Your task to perform on an android device: Open Youtube and go to "Your channel" Image 0: 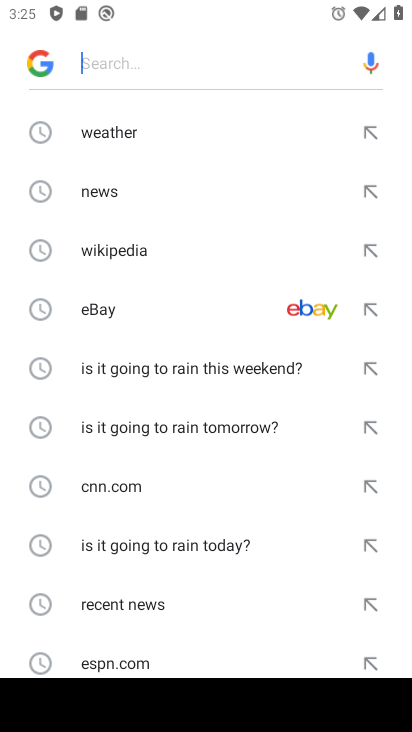
Step 0: press home button
Your task to perform on an android device: Open Youtube and go to "Your channel" Image 1: 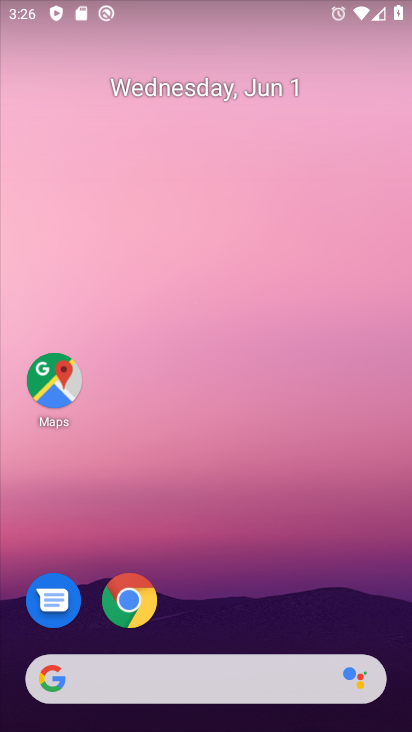
Step 1: drag from (211, 626) to (202, 222)
Your task to perform on an android device: Open Youtube and go to "Your channel" Image 2: 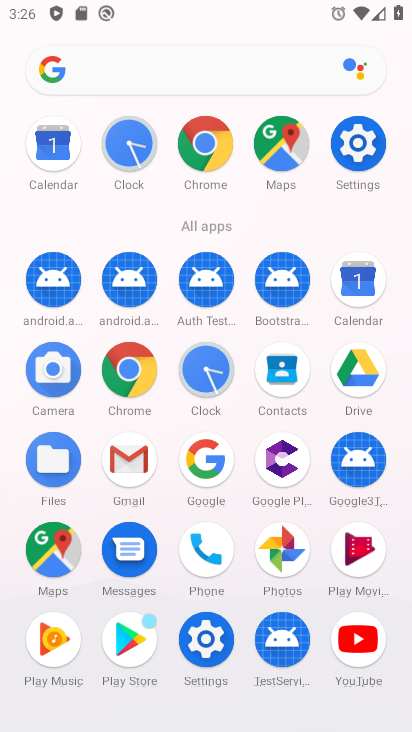
Step 2: click (356, 661)
Your task to perform on an android device: Open Youtube and go to "Your channel" Image 3: 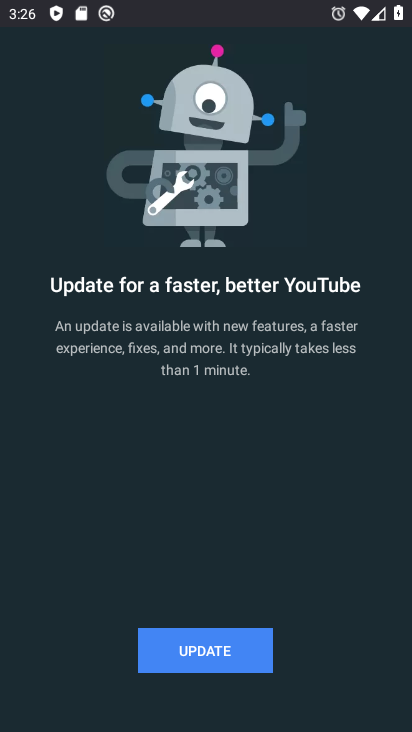
Step 3: click (237, 659)
Your task to perform on an android device: Open Youtube and go to "Your channel" Image 4: 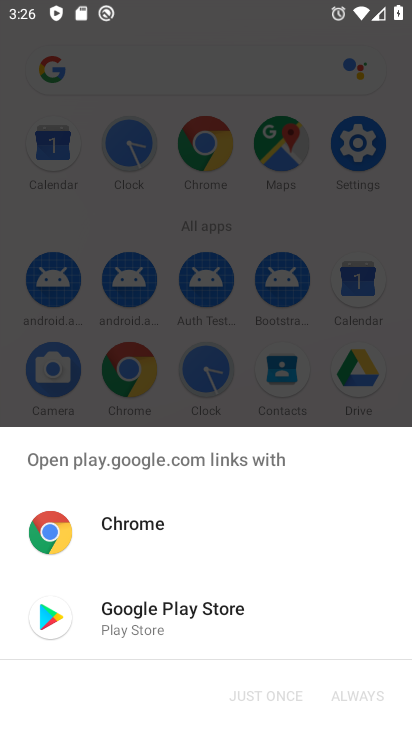
Step 4: click (205, 620)
Your task to perform on an android device: Open Youtube and go to "Your channel" Image 5: 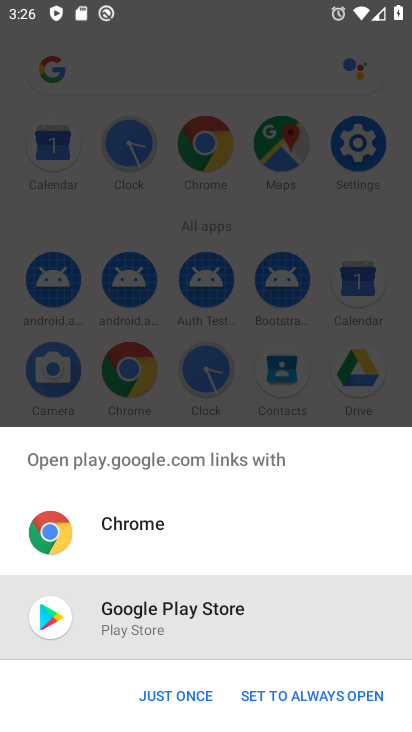
Step 5: click (277, 697)
Your task to perform on an android device: Open Youtube and go to "Your channel" Image 6: 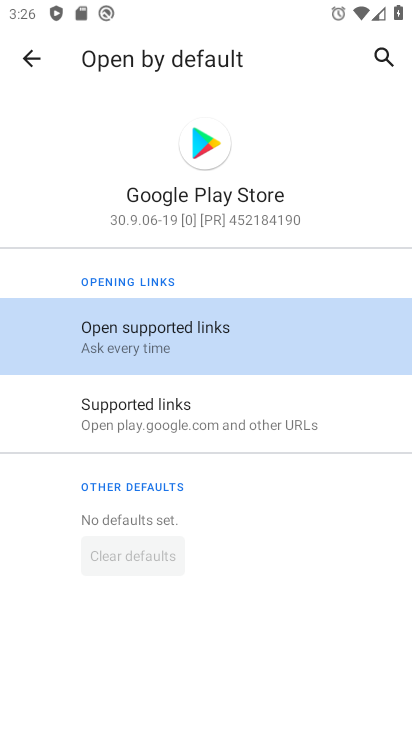
Step 6: click (115, 322)
Your task to perform on an android device: Open Youtube and go to "Your channel" Image 7: 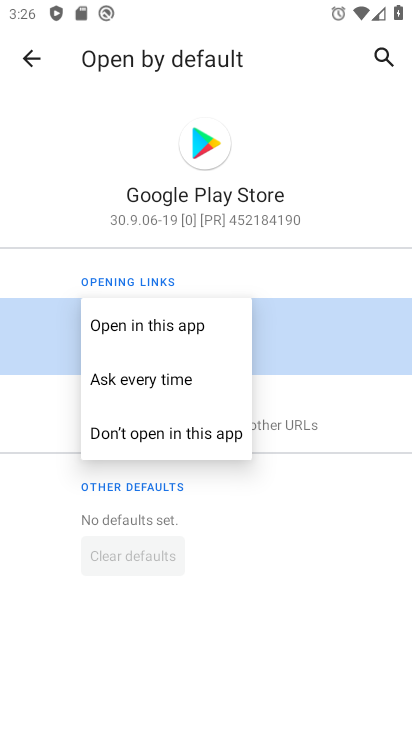
Step 7: click (121, 326)
Your task to perform on an android device: Open Youtube and go to "Your channel" Image 8: 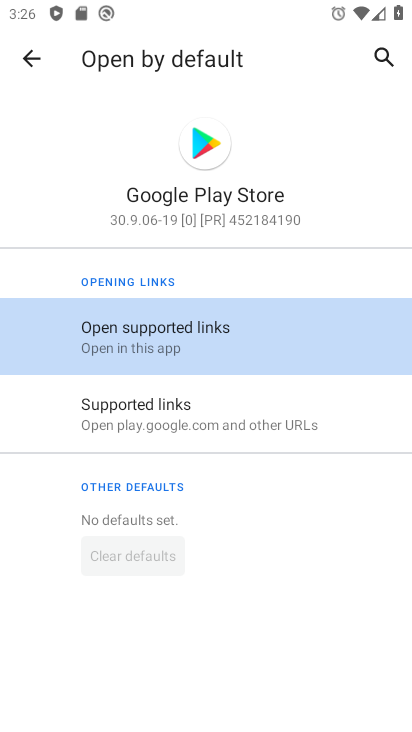
Step 8: click (26, 65)
Your task to perform on an android device: Open Youtube and go to "Your channel" Image 9: 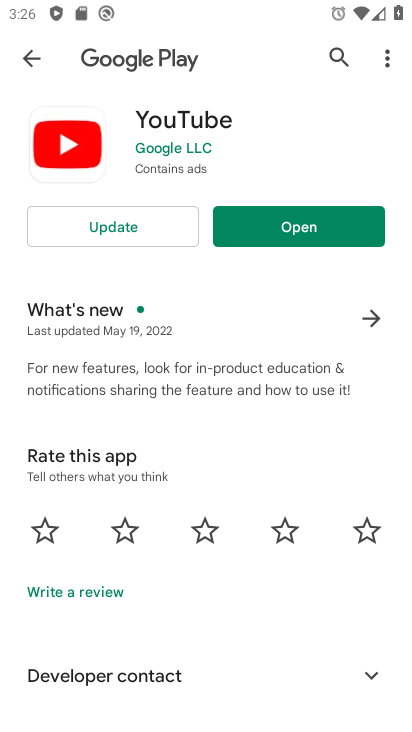
Step 9: click (173, 230)
Your task to perform on an android device: Open Youtube and go to "Your channel" Image 10: 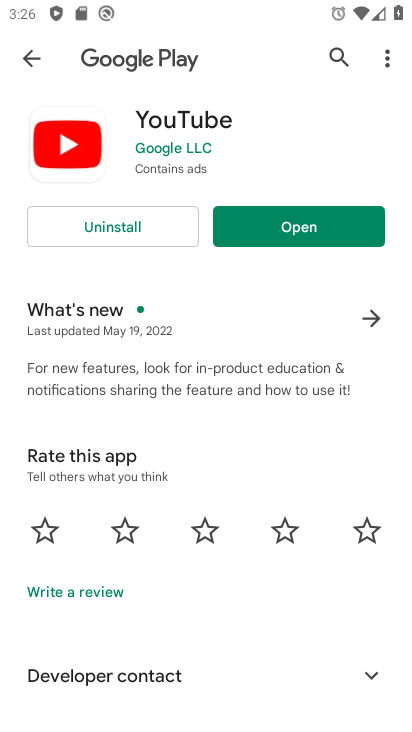
Step 10: click (282, 227)
Your task to perform on an android device: Open Youtube and go to "Your channel" Image 11: 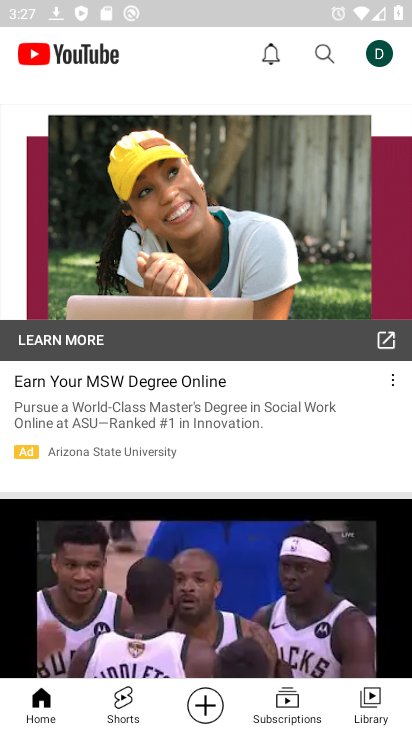
Step 11: click (388, 56)
Your task to perform on an android device: Open Youtube and go to "Your channel" Image 12: 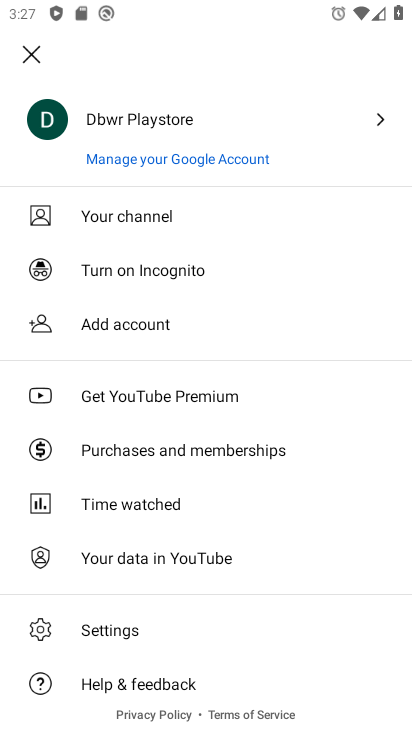
Step 12: click (156, 231)
Your task to perform on an android device: Open Youtube and go to "Your channel" Image 13: 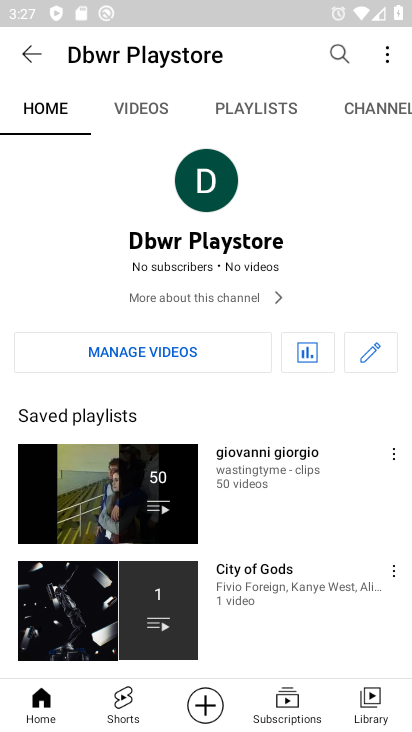
Step 13: task complete